Your task to perform on an android device: turn off priority inbox in the gmail app Image 0: 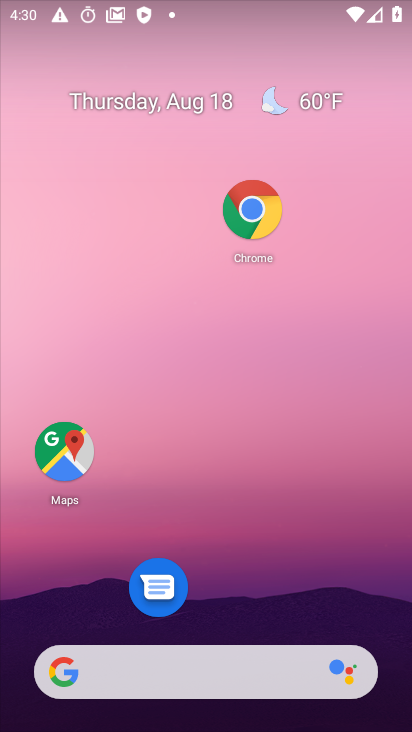
Step 0: drag from (287, 602) to (187, 116)
Your task to perform on an android device: turn off priority inbox in the gmail app Image 1: 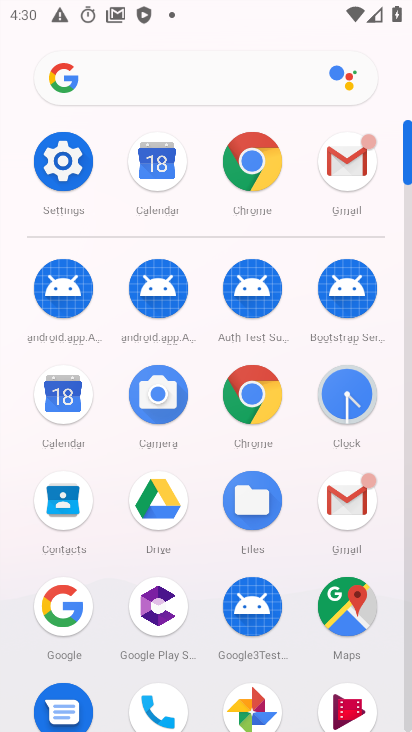
Step 1: click (354, 501)
Your task to perform on an android device: turn off priority inbox in the gmail app Image 2: 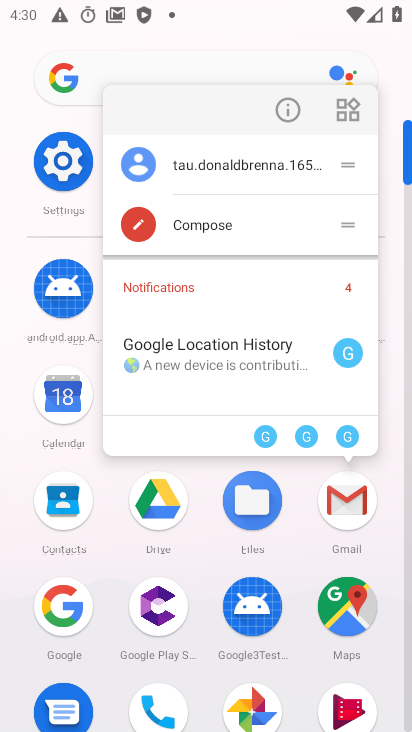
Step 2: click (336, 489)
Your task to perform on an android device: turn off priority inbox in the gmail app Image 3: 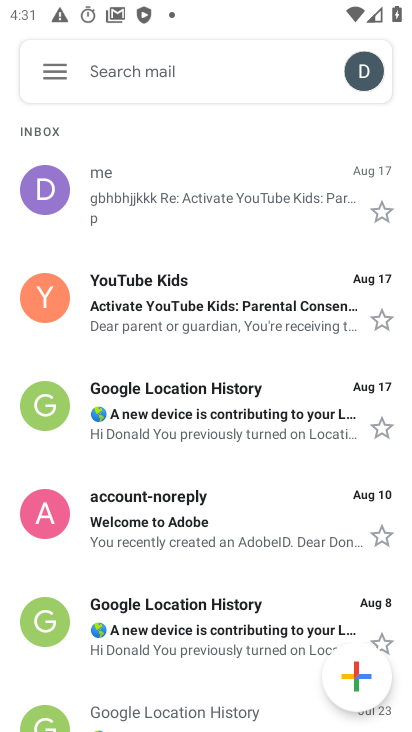
Step 3: click (50, 66)
Your task to perform on an android device: turn off priority inbox in the gmail app Image 4: 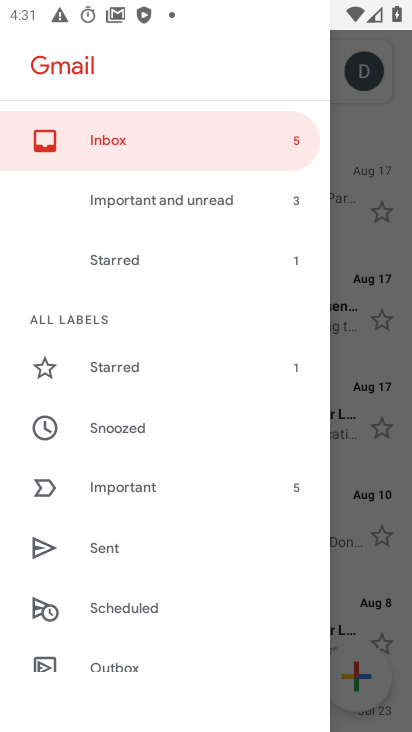
Step 4: drag from (177, 527) to (151, 89)
Your task to perform on an android device: turn off priority inbox in the gmail app Image 5: 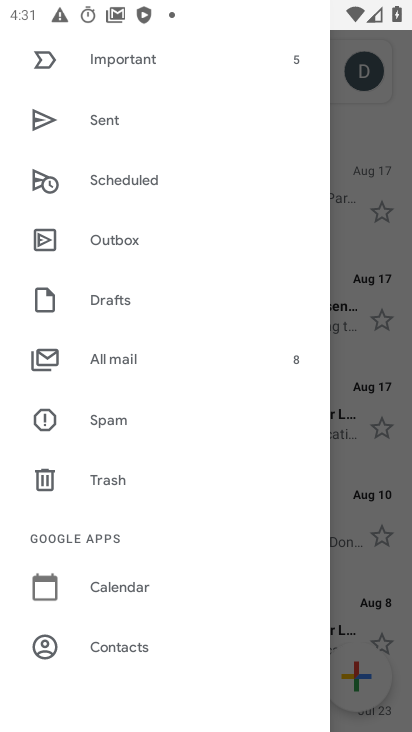
Step 5: drag from (143, 578) to (53, 228)
Your task to perform on an android device: turn off priority inbox in the gmail app Image 6: 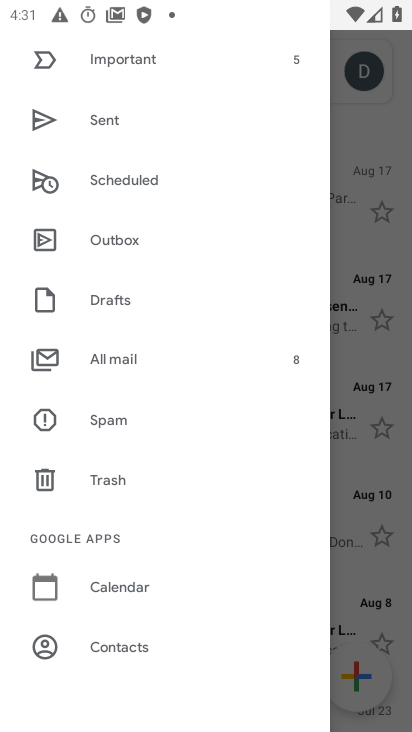
Step 6: drag from (233, 585) to (190, 180)
Your task to perform on an android device: turn off priority inbox in the gmail app Image 7: 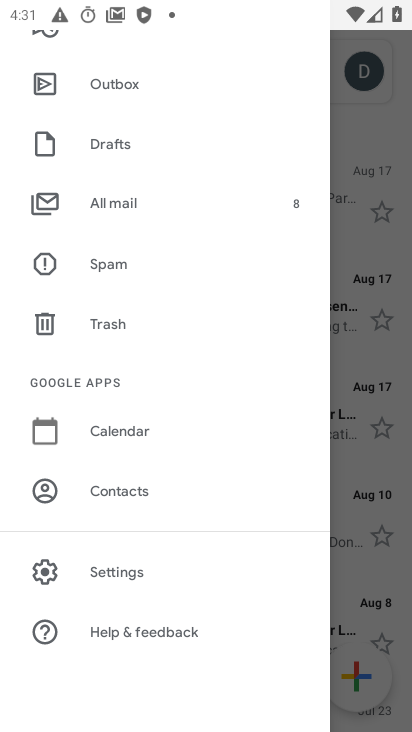
Step 7: click (112, 564)
Your task to perform on an android device: turn off priority inbox in the gmail app Image 8: 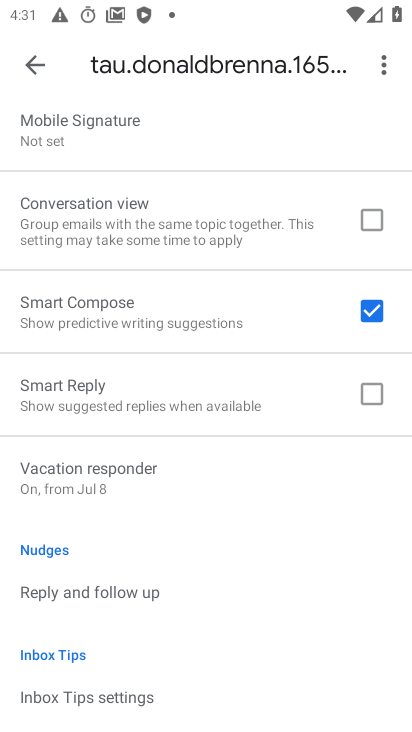
Step 8: drag from (149, 357) to (191, 702)
Your task to perform on an android device: turn off priority inbox in the gmail app Image 9: 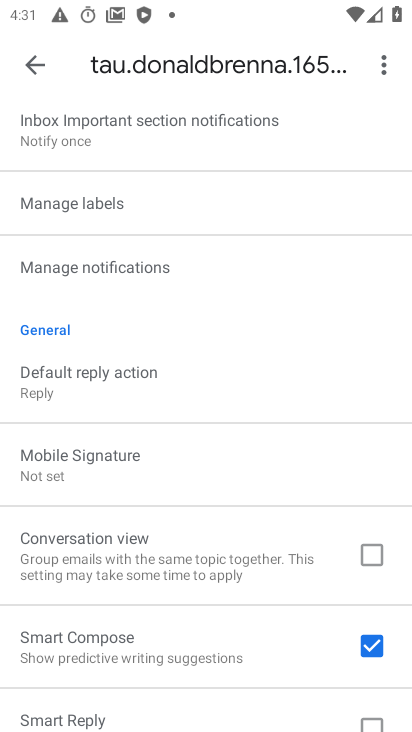
Step 9: drag from (107, 215) to (142, 614)
Your task to perform on an android device: turn off priority inbox in the gmail app Image 10: 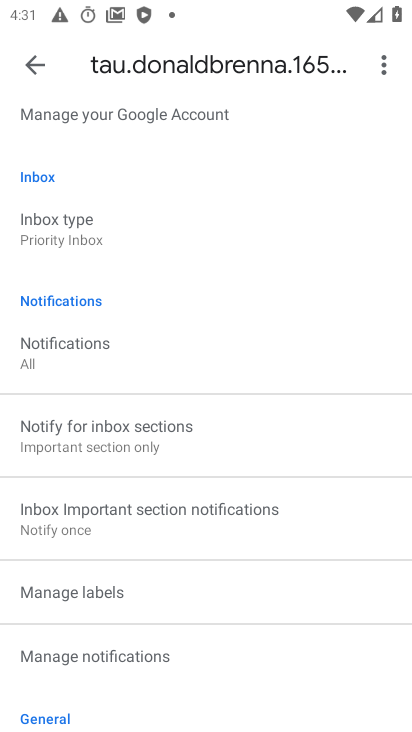
Step 10: click (64, 238)
Your task to perform on an android device: turn off priority inbox in the gmail app Image 11: 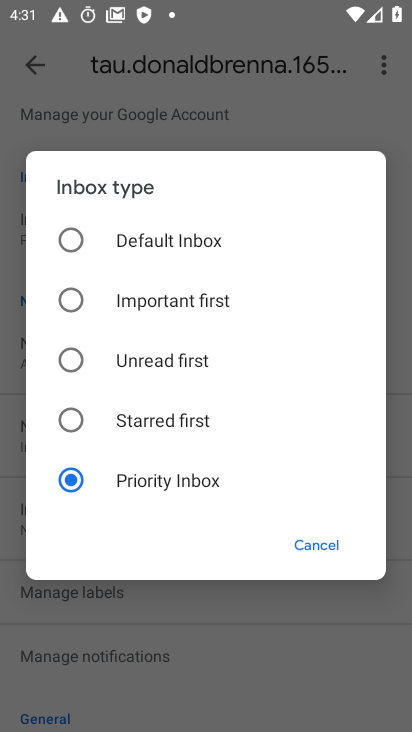
Step 11: click (184, 230)
Your task to perform on an android device: turn off priority inbox in the gmail app Image 12: 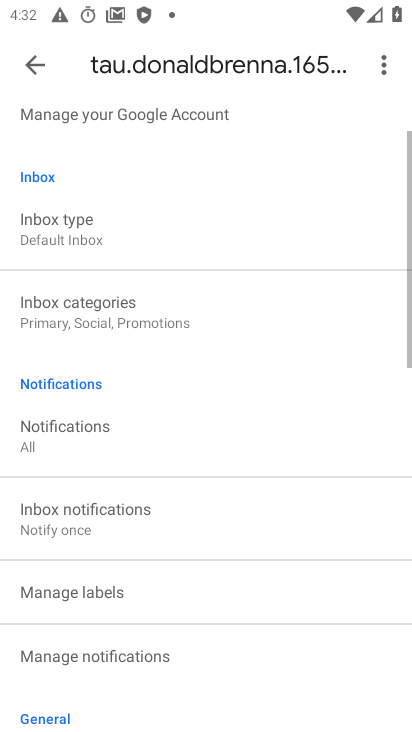
Step 12: task complete